Your task to perform on an android device: turn on translation in the chrome app Image 0: 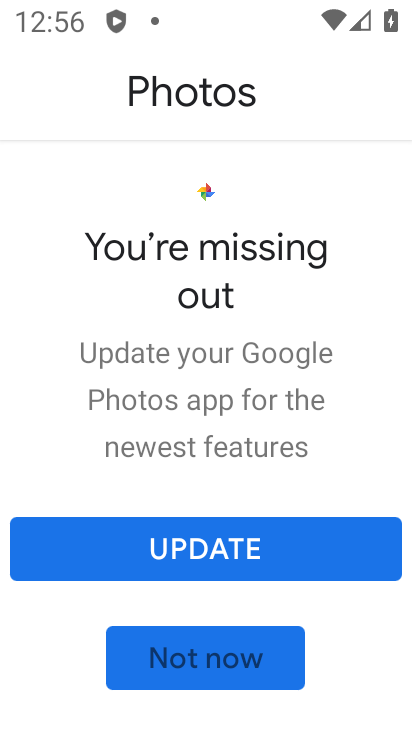
Step 0: press home button
Your task to perform on an android device: turn on translation in the chrome app Image 1: 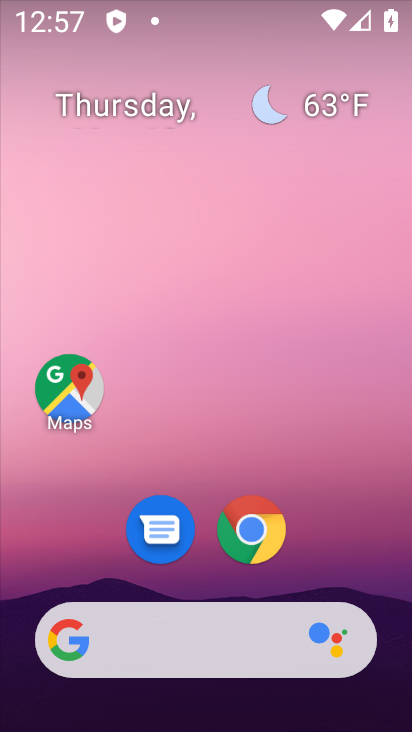
Step 1: click (251, 529)
Your task to perform on an android device: turn on translation in the chrome app Image 2: 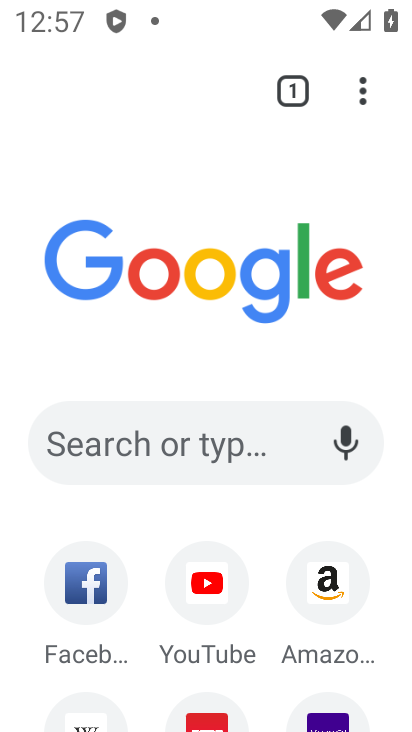
Step 2: click (363, 87)
Your task to perform on an android device: turn on translation in the chrome app Image 3: 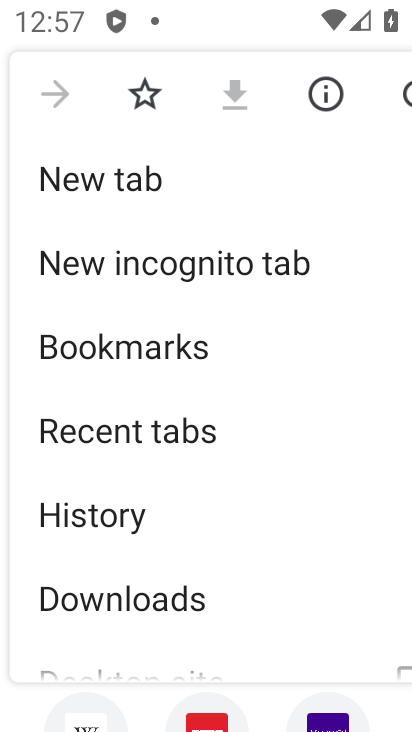
Step 3: drag from (208, 520) to (226, 399)
Your task to perform on an android device: turn on translation in the chrome app Image 4: 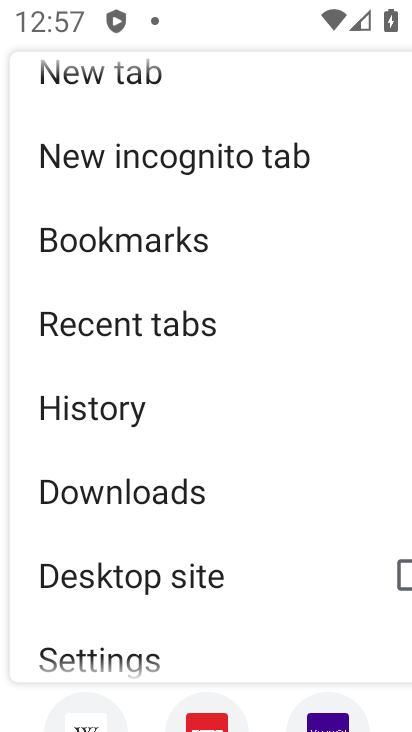
Step 4: drag from (209, 520) to (271, 409)
Your task to perform on an android device: turn on translation in the chrome app Image 5: 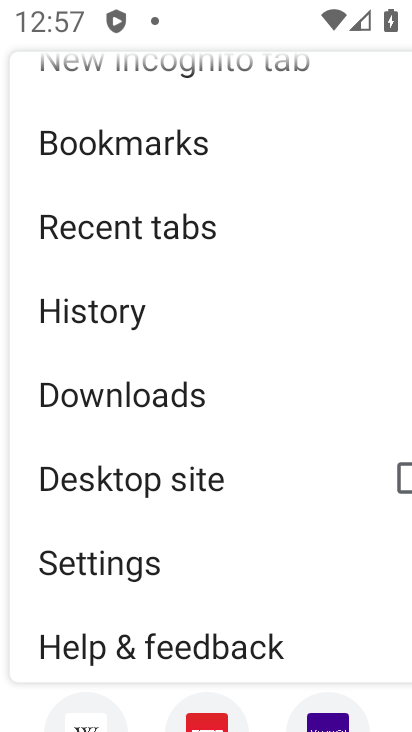
Step 5: drag from (188, 518) to (271, 417)
Your task to perform on an android device: turn on translation in the chrome app Image 6: 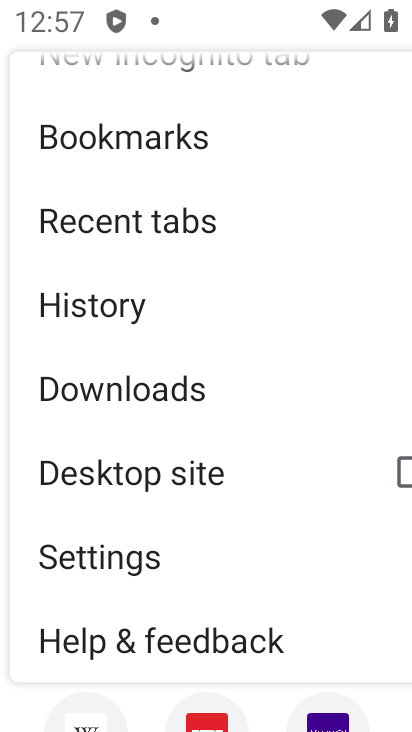
Step 6: click (117, 556)
Your task to perform on an android device: turn on translation in the chrome app Image 7: 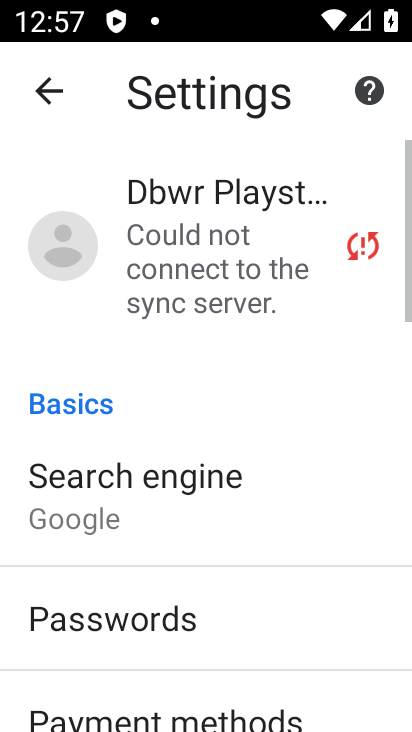
Step 7: drag from (151, 527) to (206, 395)
Your task to perform on an android device: turn on translation in the chrome app Image 8: 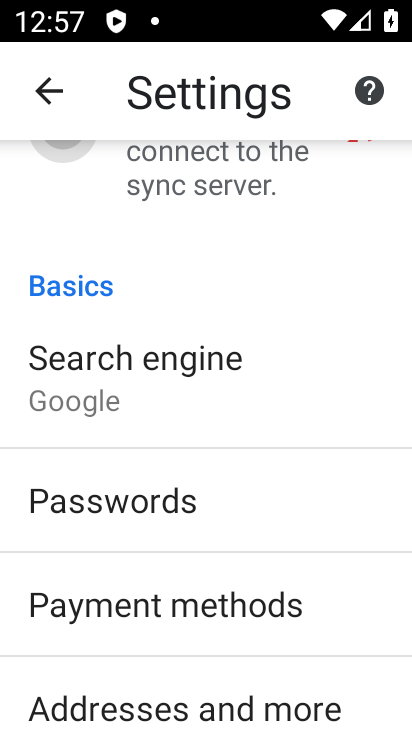
Step 8: drag from (189, 525) to (240, 412)
Your task to perform on an android device: turn on translation in the chrome app Image 9: 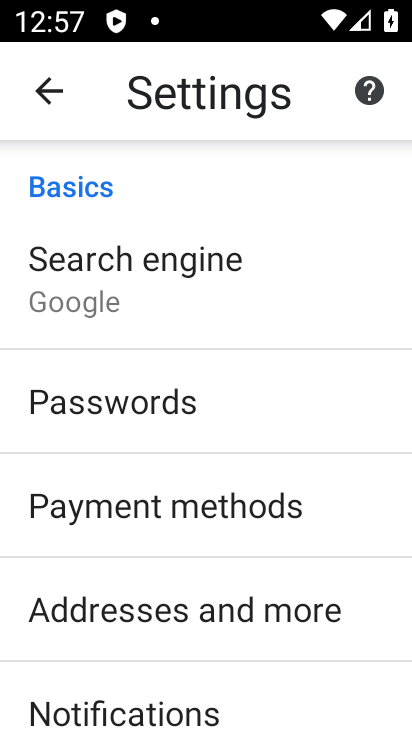
Step 9: drag from (142, 548) to (202, 414)
Your task to perform on an android device: turn on translation in the chrome app Image 10: 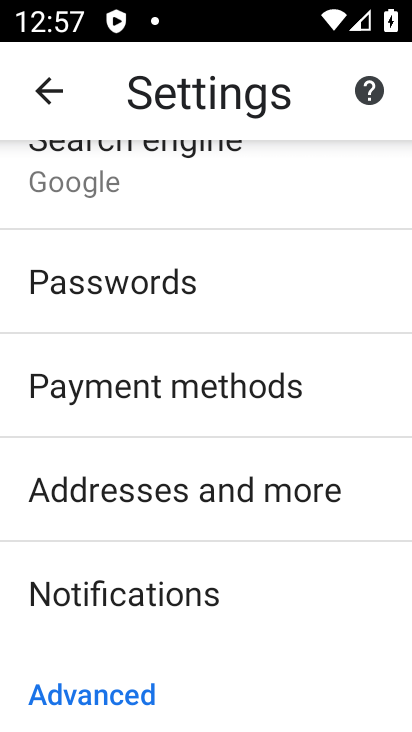
Step 10: drag from (148, 515) to (200, 409)
Your task to perform on an android device: turn on translation in the chrome app Image 11: 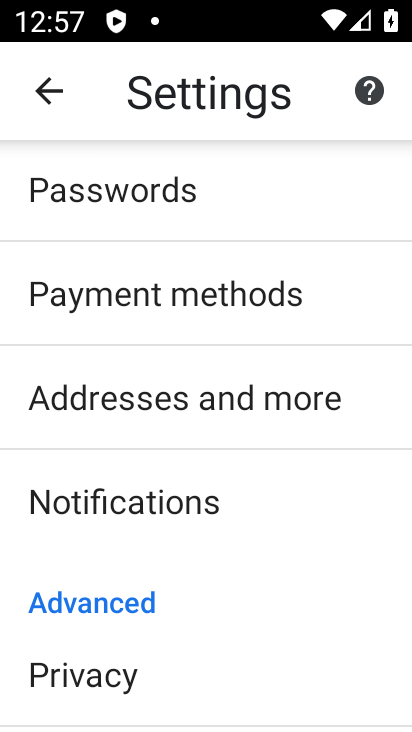
Step 11: drag from (160, 536) to (234, 414)
Your task to perform on an android device: turn on translation in the chrome app Image 12: 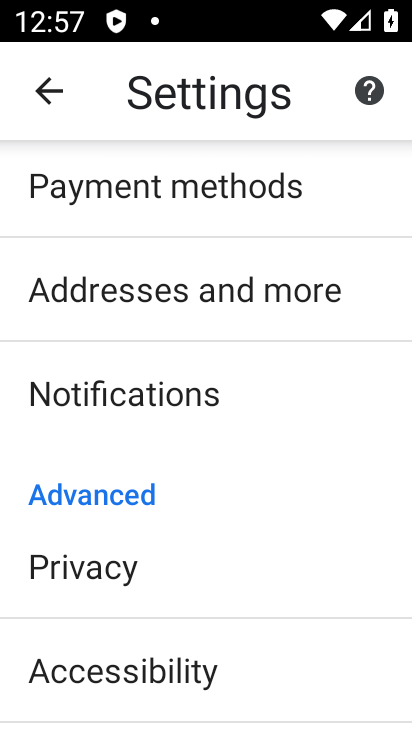
Step 12: drag from (155, 560) to (204, 442)
Your task to perform on an android device: turn on translation in the chrome app Image 13: 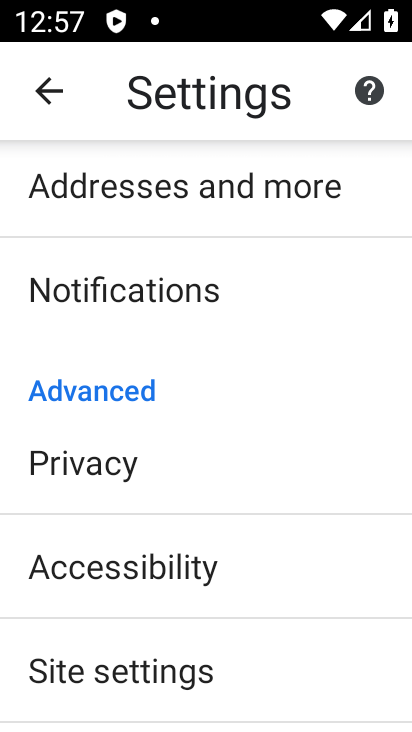
Step 13: drag from (124, 584) to (205, 469)
Your task to perform on an android device: turn on translation in the chrome app Image 14: 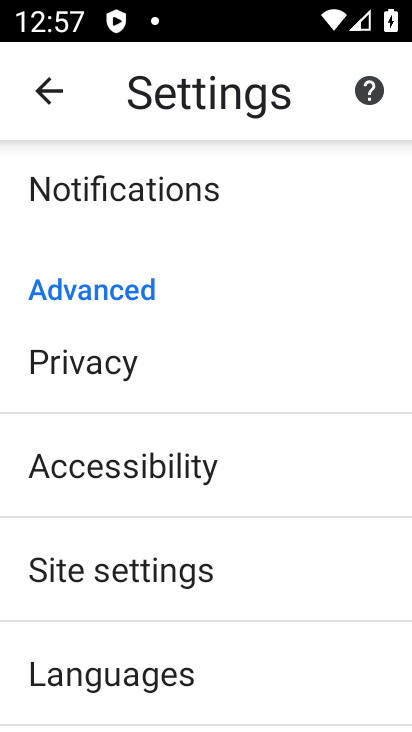
Step 14: drag from (144, 548) to (233, 414)
Your task to perform on an android device: turn on translation in the chrome app Image 15: 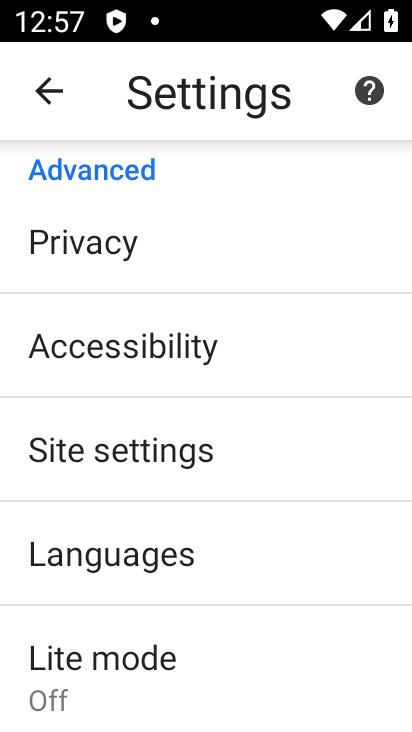
Step 15: drag from (123, 530) to (215, 418)
Your task to perform on an android device: turn on translation in the chrome app Image 16: 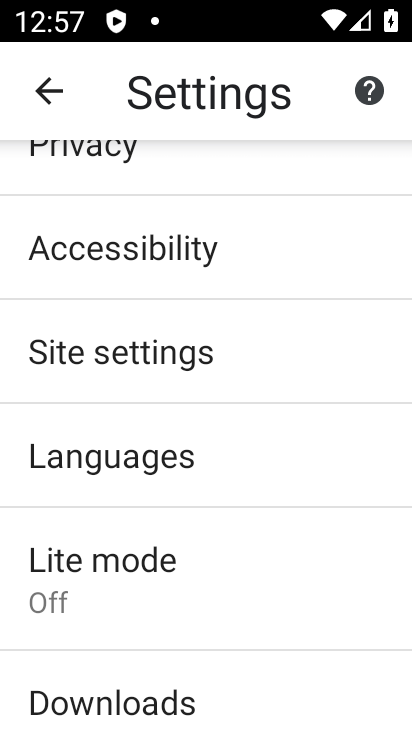
Step 16: click (180, 458)
Your task to perform on an android device: turn on translation in the chrome app Image 17: 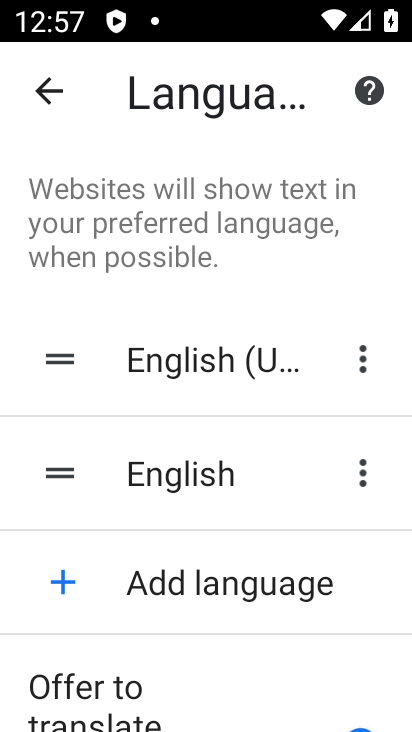
Step 17: task complete